Your task to perform on an android device: Open Google Chrome and click the shortcut for Amazon.com Image 0: 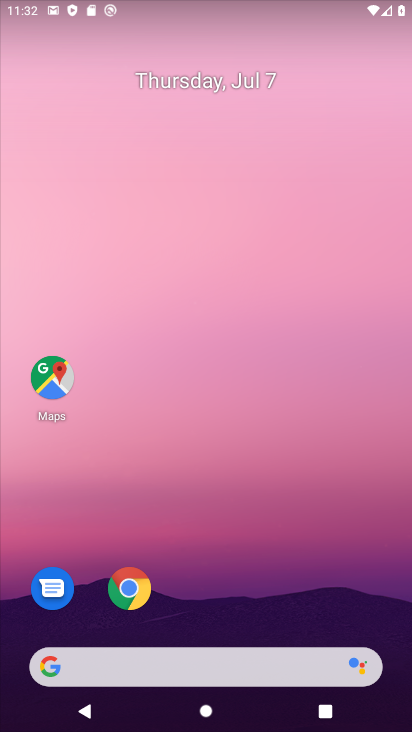
Step 0: drag from (363, 594) to (381, 14)
Your task to perform on an android device: Open Google Chrome and click the shortcut for Amazon.com Image 1: 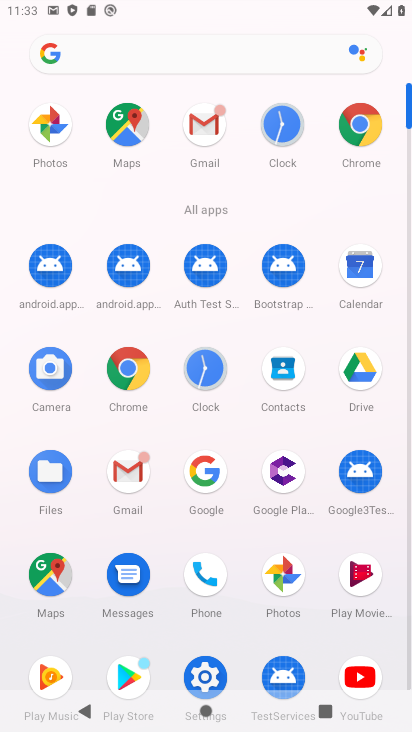
Step 1: click (365, 135)
Your task to perform on an android device: Open Google Chrome and click the shortcut for Amazon.com Image 2: 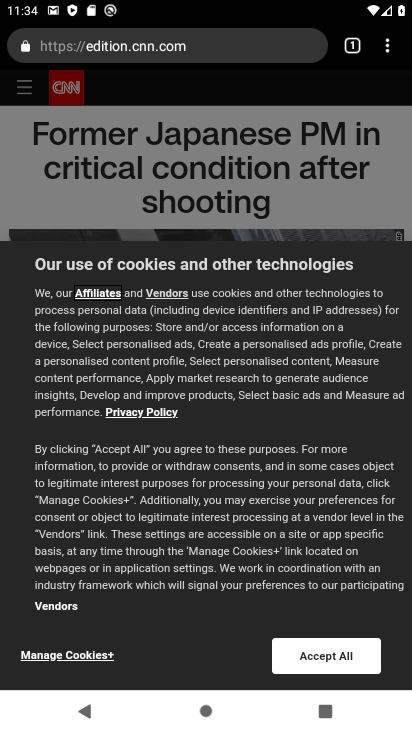
Step 2: click (195, 44)
Your task to perform on an android device: Open Google Chrome and click the shortcut for Amazon.com Image 3: 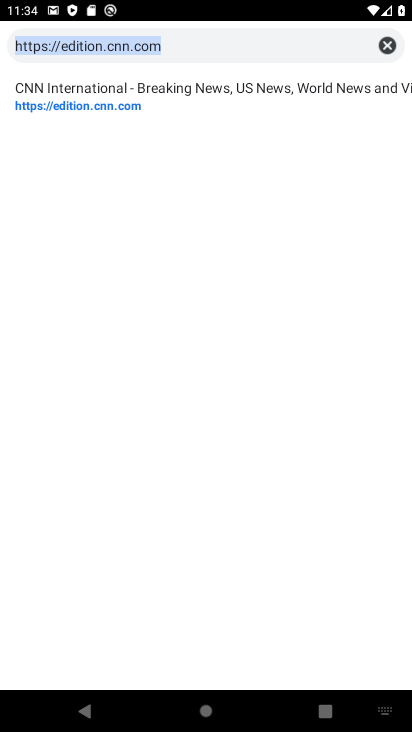
Step 3: click (378, 39)
Your task to perform on an android device: Open Google Chrome and click the shortcut for Amazon.com Image 4: 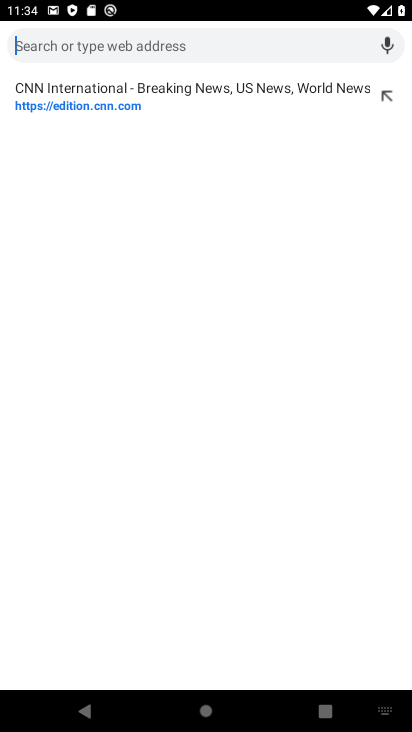
Step 4: press back button
Your task to perform on an android device: Open Google Chrome and click the shortcut for Amazon.com Image 5: 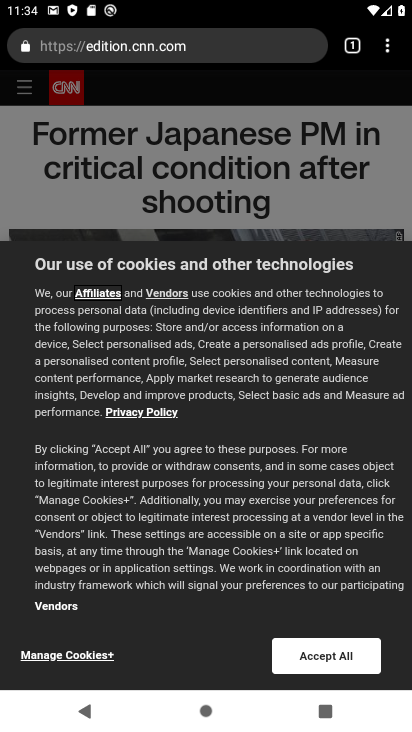
Step 5: drag from (381, 50) to (239, 86)
Your task to perform on an android device: Open Google Chrome and click the shortcut for Amazon.com Image 6: 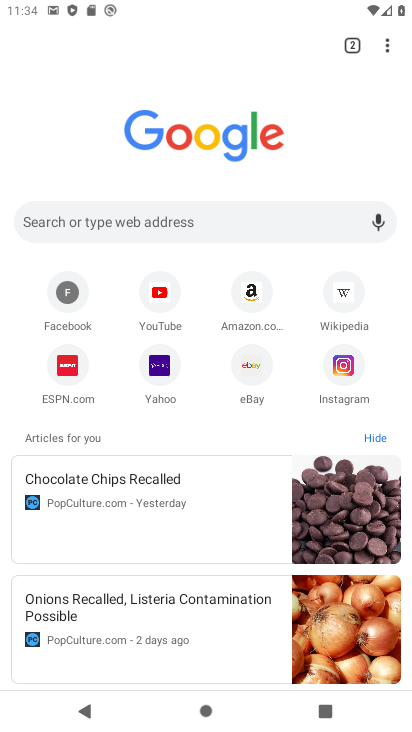
Step 6: click (262, 317)
Your task to perform on an android device: Open Google Chrome and click the shortcut for Amazon.com Image 7: 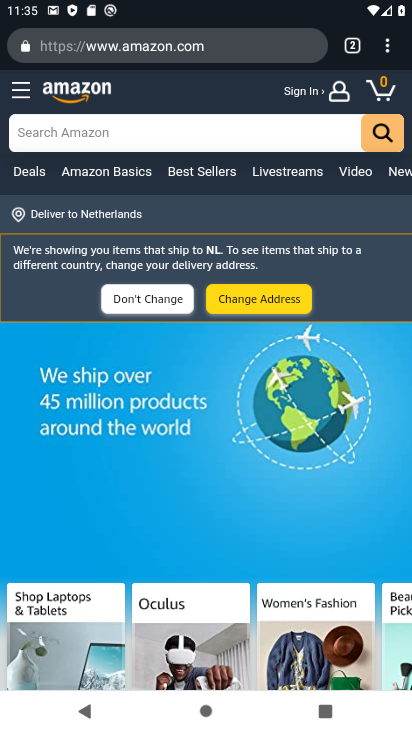
Step 7: task complete